Your task to perform on an android device: Open the map Image 0: 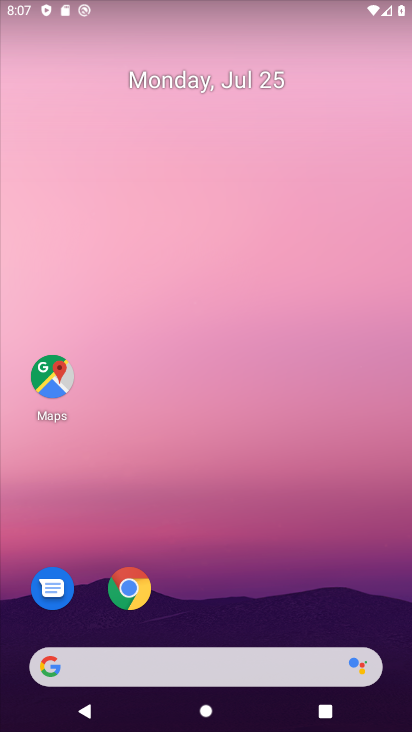
Step 0: click (42, 371)
Your task to perform on an android device: Open the map Image 1: 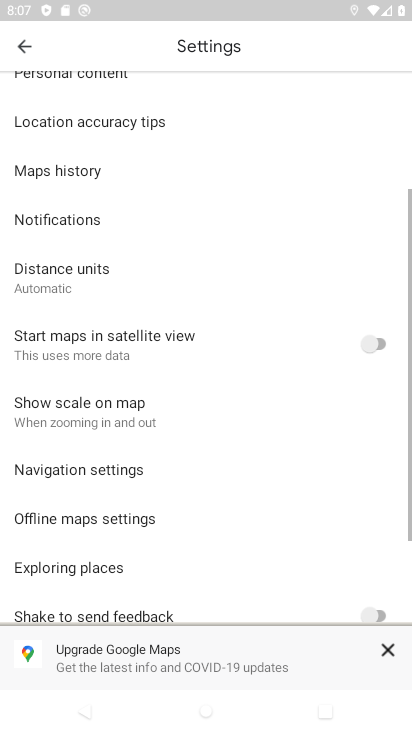
Step 1: click (18, 52)
Your task to perform on an android device: Open the map Image 2: 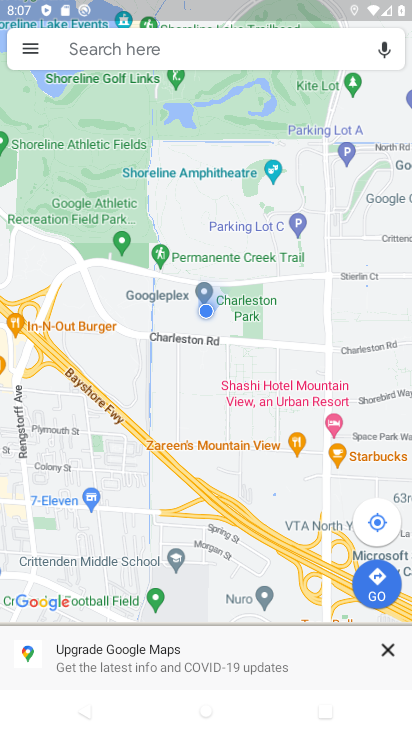
Step 2: task complete